Your task to perform on an android device: find which apps use the phone's location Image 0: 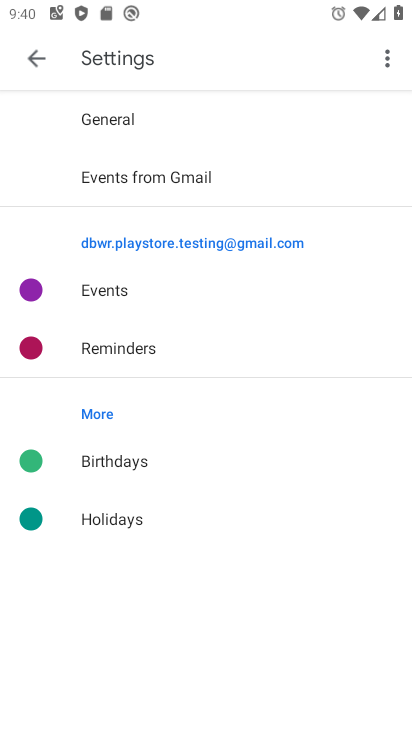
Step 0: press home button
Your task to perform on an android device: find which apps use the phone's location Image 1: 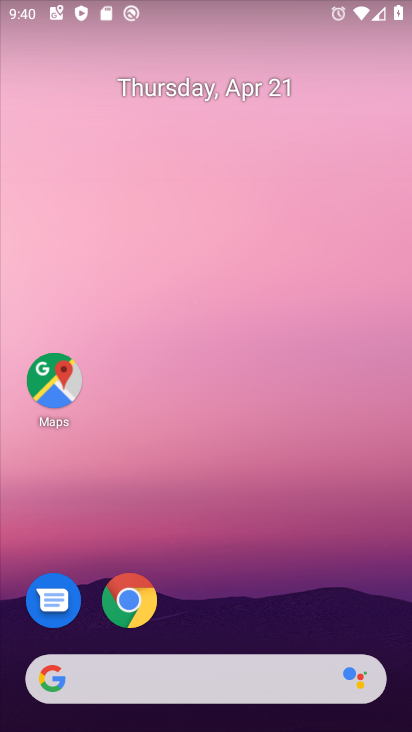
Step 1: drag from (237, 539) to (250, 73)
Your task to perform on an android device: find which apps use the phone's location Image 2: 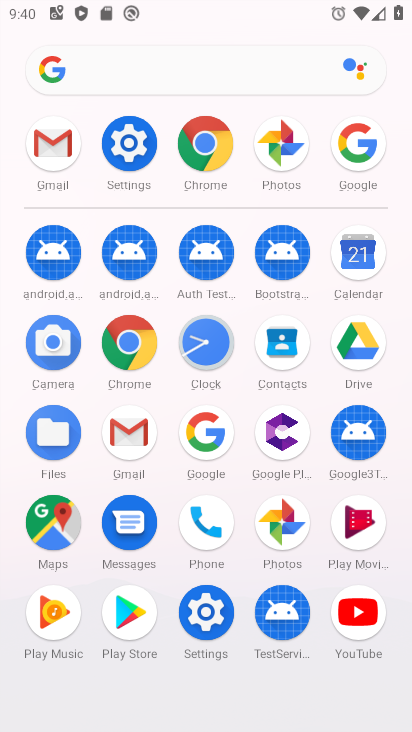
Step 2: click (205, 621)
Your task to perform on an android device: find which apps use the phone's location Image 3: 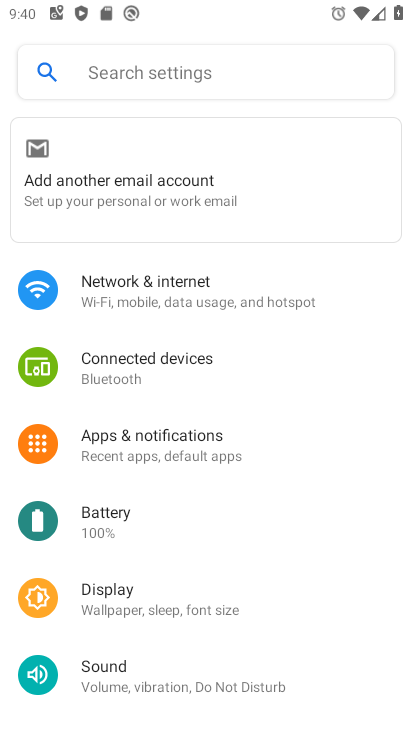
Step 3: drag from (178, 633) to (231, 155)
Your task to perform on an android device: find which apps use the phone's location Image 4: 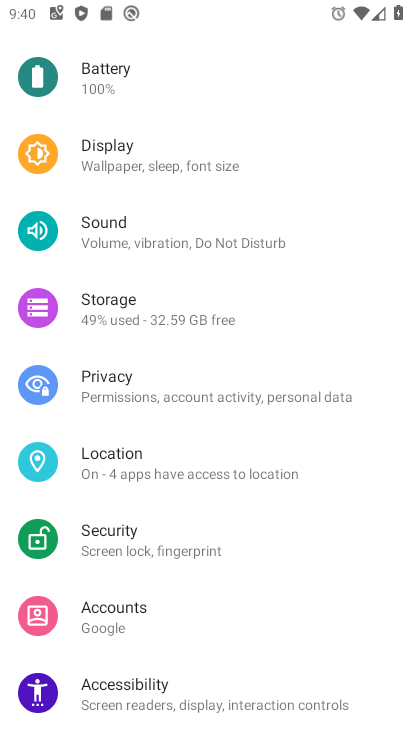
Step 4: click (102, 468)
Your task to perform on an android device: find which apps use the phone's location Image 5: 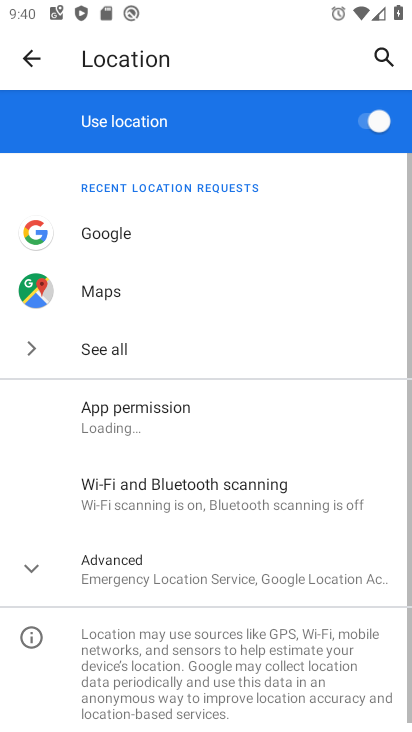
Step 5: click (146, 416)
Your task to perform on an android device: find which apps use the phone's location Image 6: 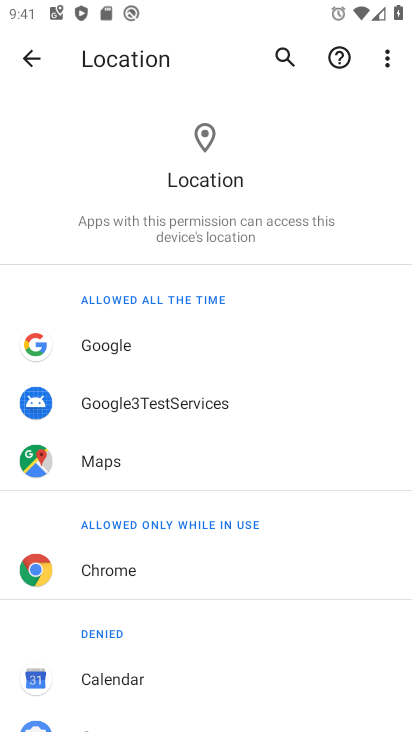
Step 6: task complete